Your task to perform on an android device: Go to eBay Image 0: 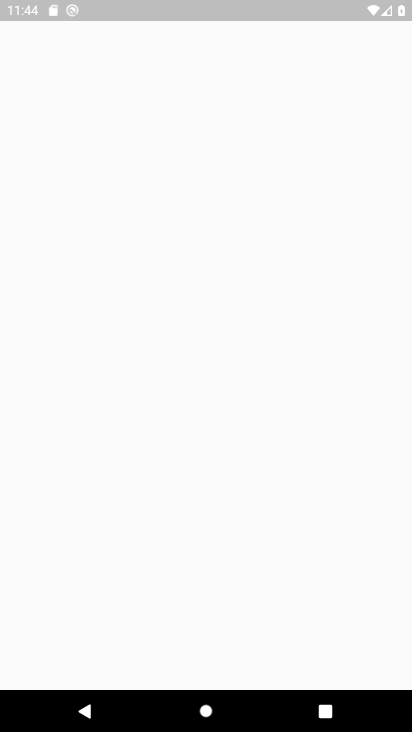
Step 0: press home button
Your task to perform on an android device: Go to eBay Image 1: 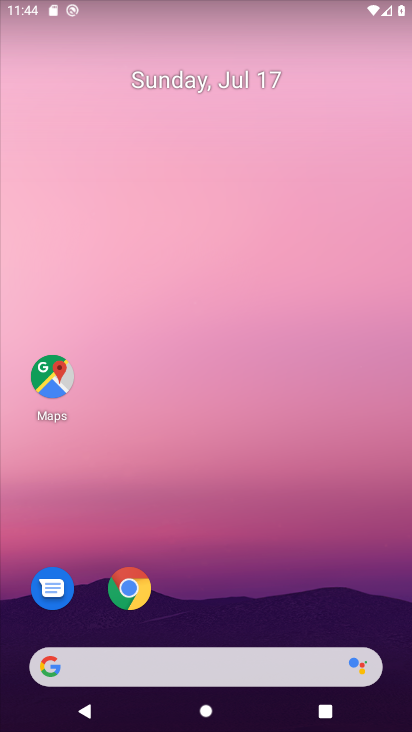
Step 1: drag from (228, 622) to (330, 0)
Your task to perform on an android device: Go to eBay Image 2: 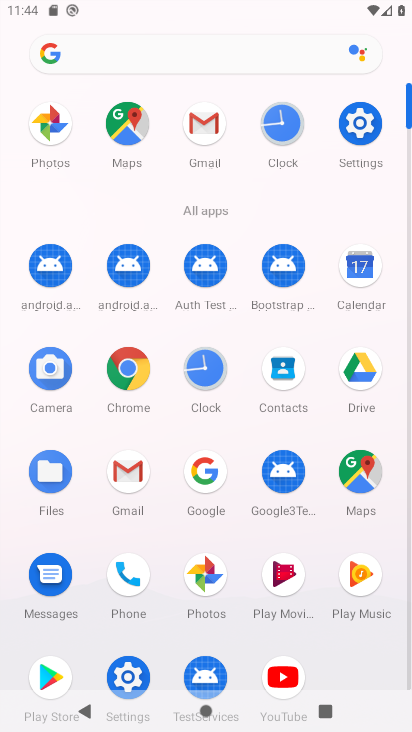
Step 2: click (122, 378)
Your task to perform on an android device: Go to eBay Image 3: 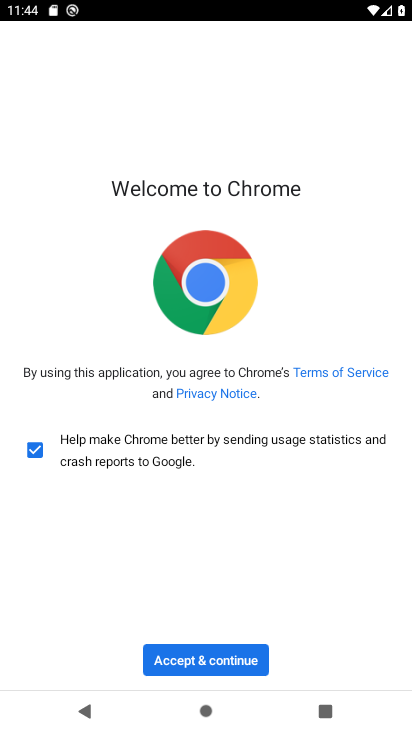
Step 3: click (246, 657)
Your task to perform on an android device: Go to eBay Image 4: 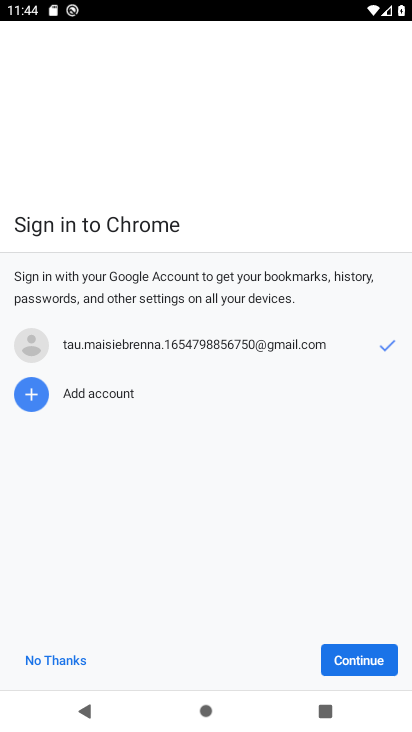
Step 4: click (340, 661)
Your task to perform on an android device: Go to eBay Image 5: 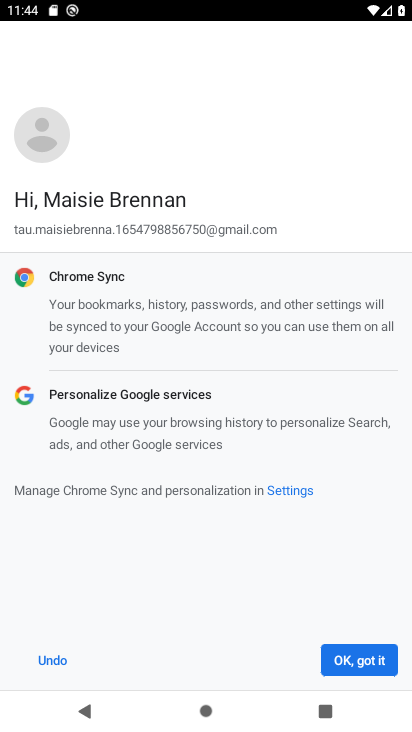
Step 5: click (340, 661)
Your task to perform on an android device: Go to eBay Image 6: 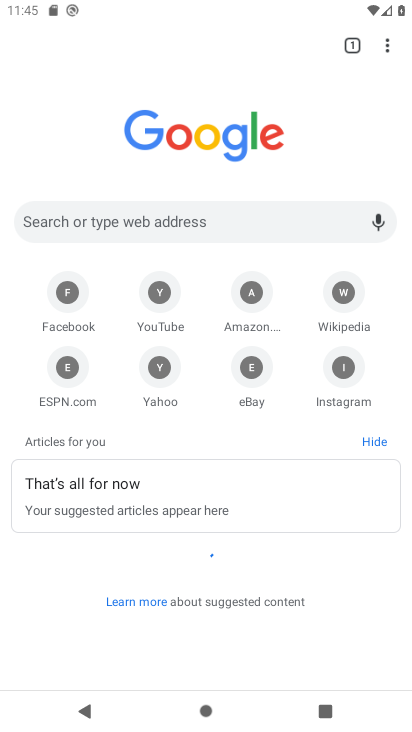
Step 6: click (253, 367)
Your task to perform on an android device: Go to eBay Image 7: 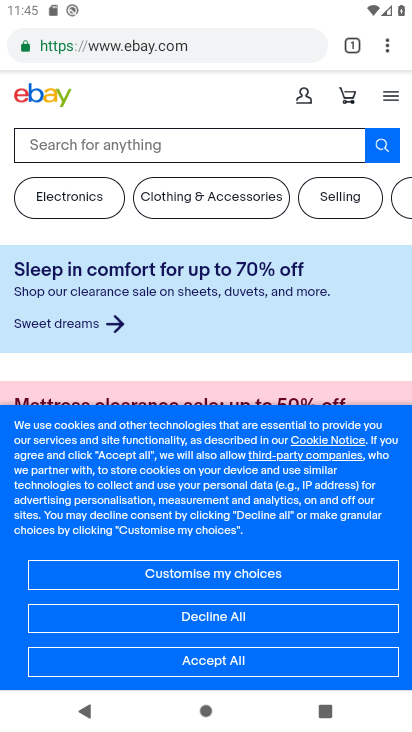
Step 7: task complete